Your task to perform on an android device: Open calendar and show me the second week of next month Image 0: 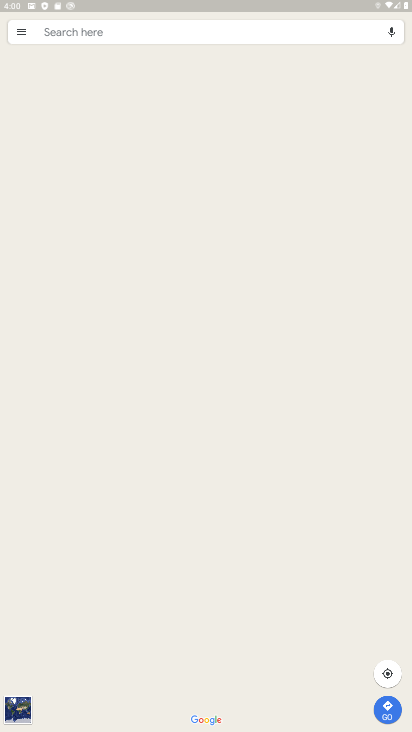
Step 0: press home button
Your task to perform on an android device: Open calendar and show me the second week of next month Image 1: 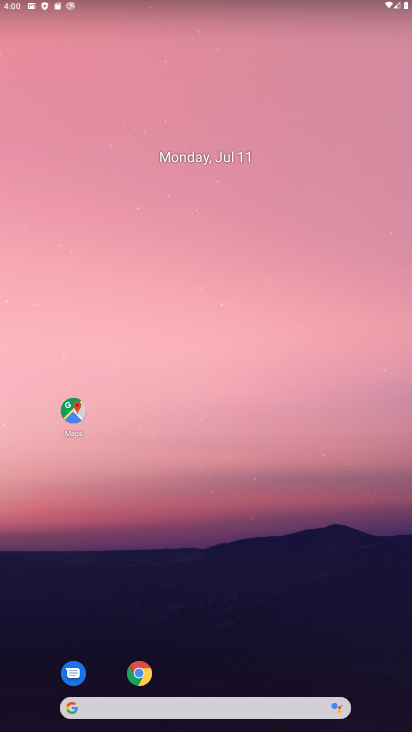
Step 1: drag from (177, 632) to (277, 101)
Your task to perform on an android device: Open calendar and show me the second week of next month Image 2: 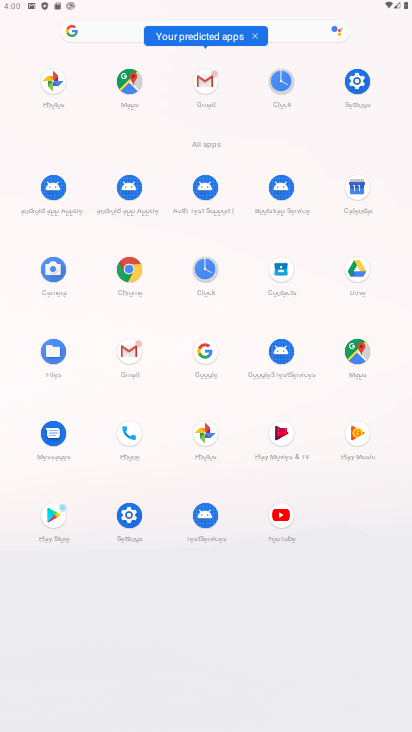
Step 2: click (358, 195)
Your task to perform on an android device: Open calendar and show me the second week of next month Image 3: 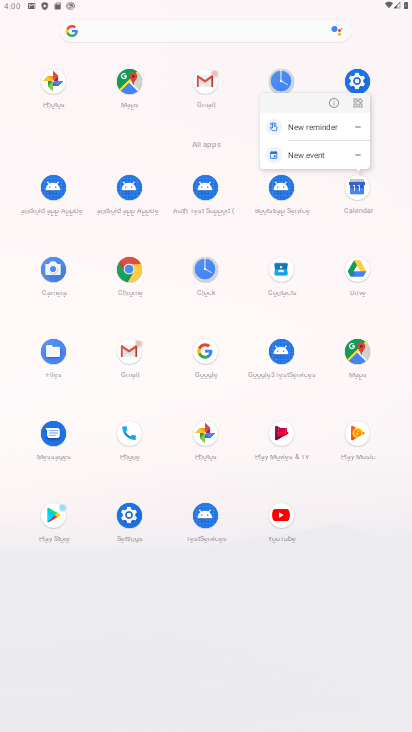
Step 3: click (358, 195)
Your task to perform on an android device: Open calendar and show me the second week of next month Image 4: 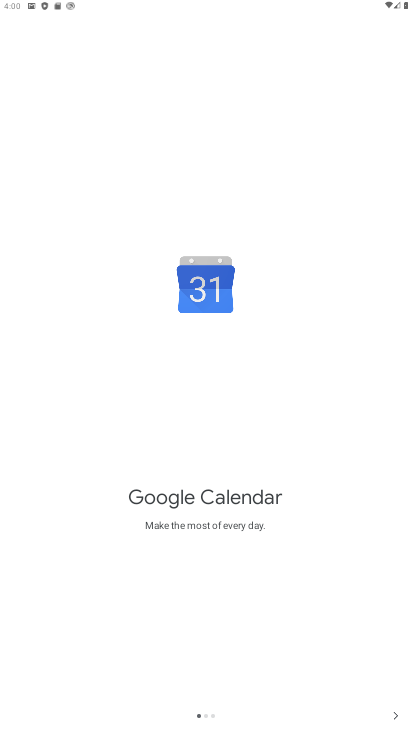
Step 4: click (396, 713)
Your task to perform on an android device: Open calendar and show me the second week of next month Image 5: 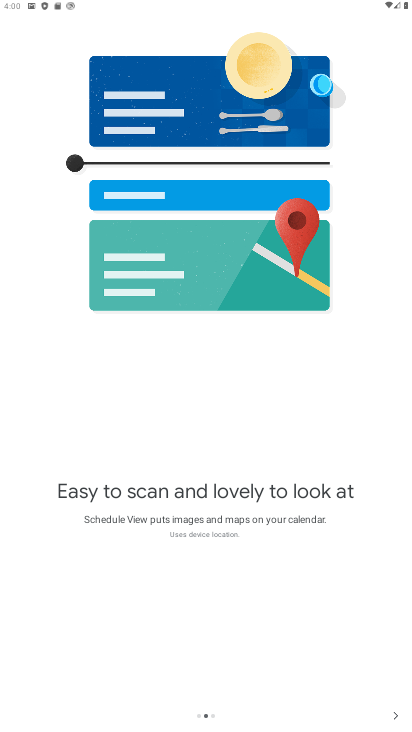
Step 5: click (396, 713)
Your task to perform on an android device: Open calendar and show me the second week of next month Image 6: 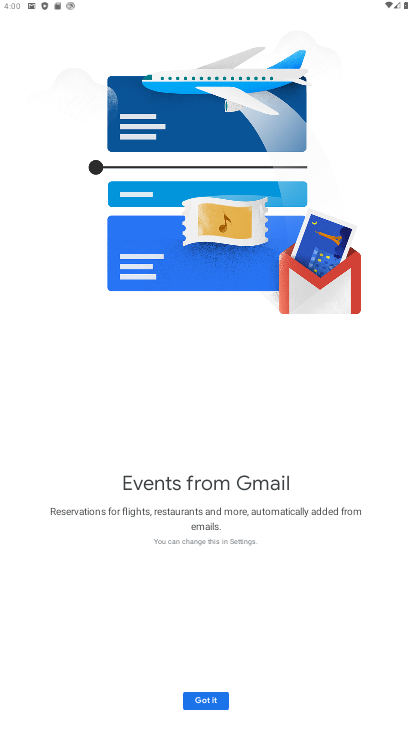
Step 6: click (221, 697)
Your task to perform on an android device: Open calendar and show me the second week of next month Image 7: 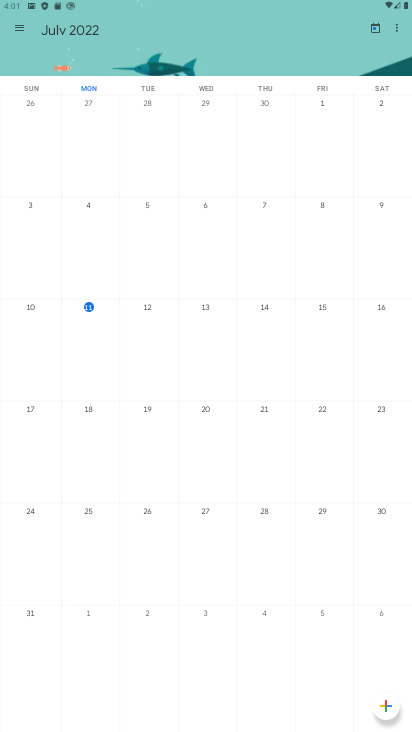
Step 7: click (21, 26)
Your task to perform on an android device: Open calendar and show me the second week of next month Image 8: 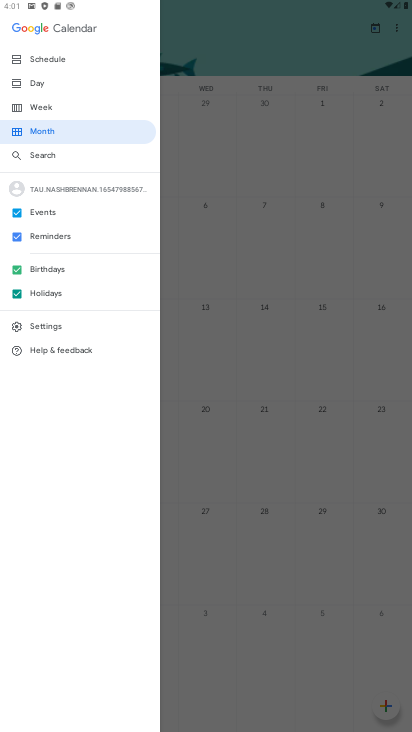
Step 8: click (47, 113)
Your task to perform on an android device: Open calendar and show me the second week of next month Image 9: 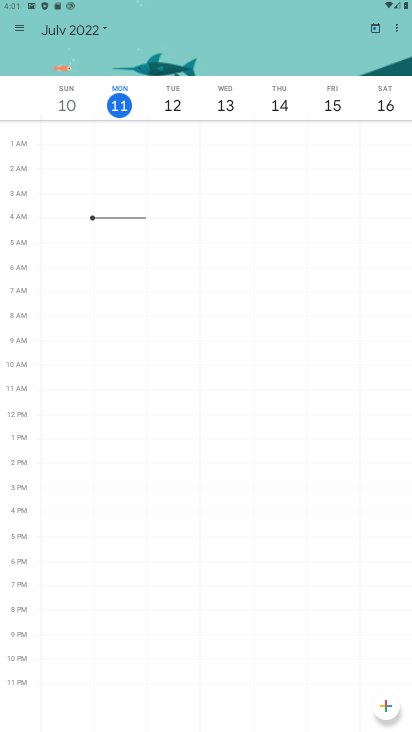
Step 9: click (92, 28)
Your task to perform on an android device: Open calendar and show me the second week of next month Image 10: 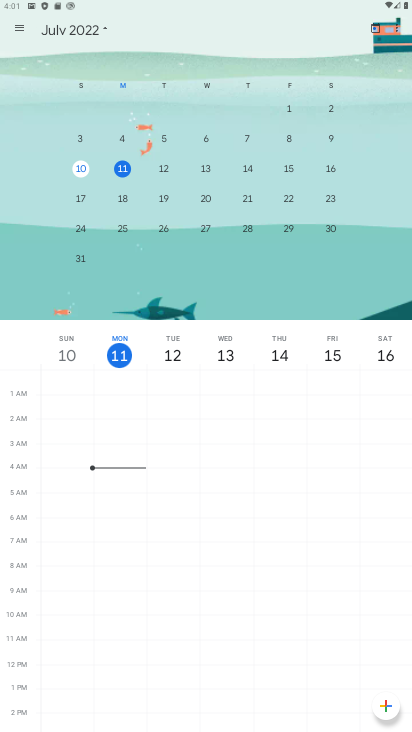
Step 10: drag from (310, 176) to (14, 159)
Your task to perform on an android device: Open calendar and show me the second week of next month Image 11: 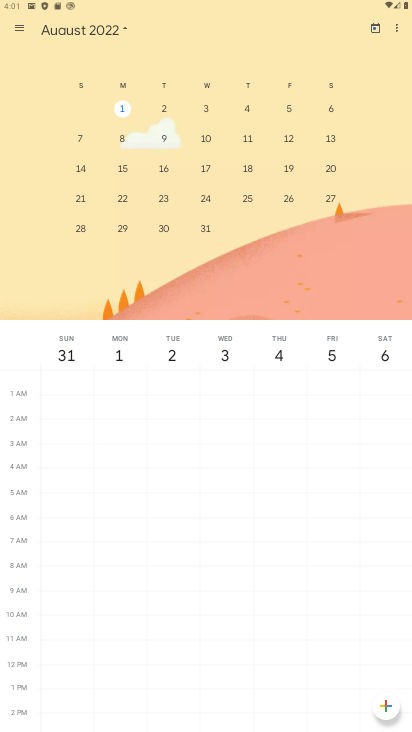
Step 11: click (86, 166)
Your task to perform on an android device: Open calendar and show me the second week of next month Image 12: 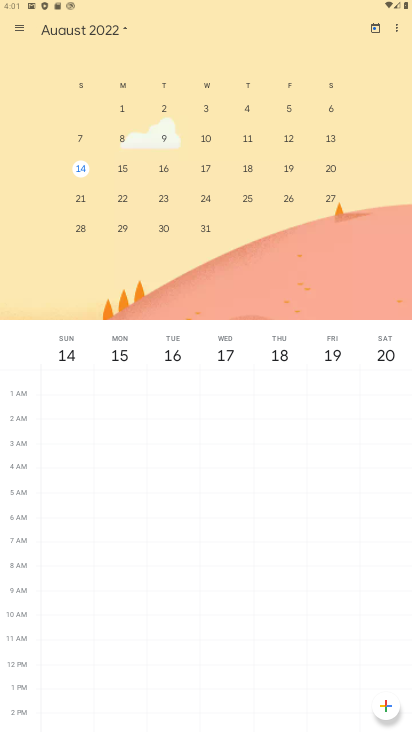
Step 12: click (110, 30)
Your task to perform on an android device: Open calendar and show me the second week of next month Image 13: 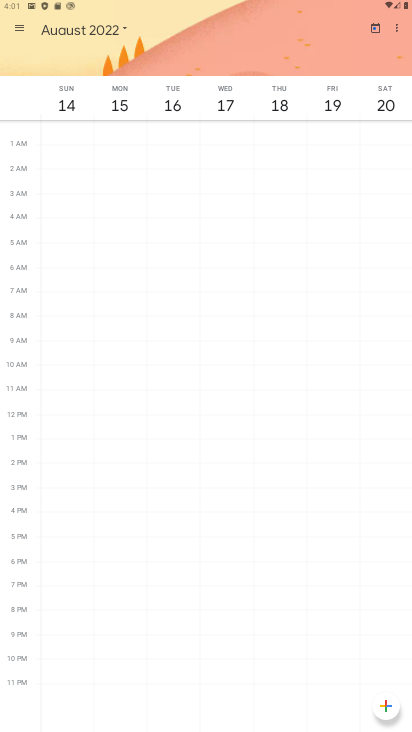
Step 13: task complete